Your task to perform on an android device: turn on airplane mode Image 0: 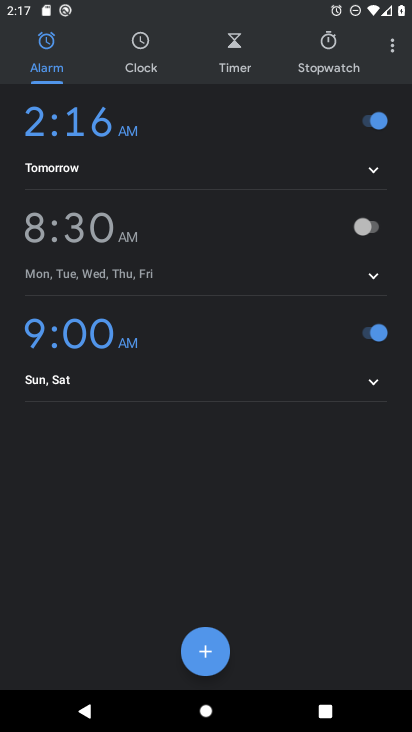
Step 0: press home button
Your task to perform on an android device: turn on airplane mode Image 1: 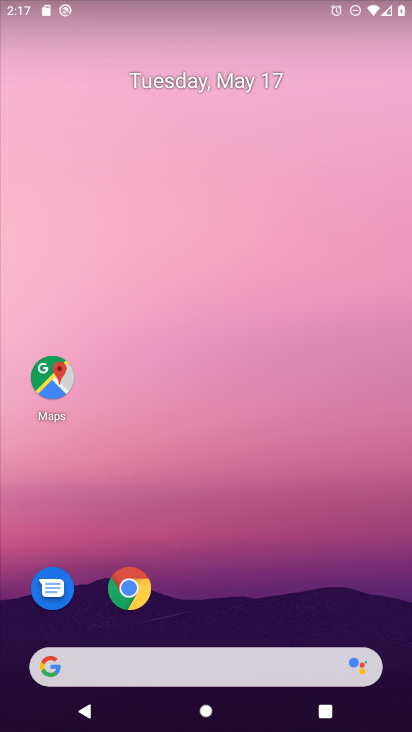
Step 1: drag from (236, 621) to (80, 73)
Your task to perform on an android device: turn on airplane mode Image 2: 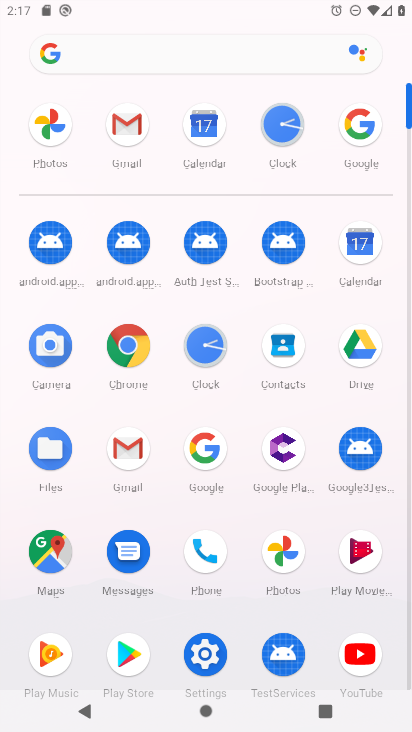
Step 2: click (203, 644)
Your task to perform on an android device: turn on airplane mode Image 3: 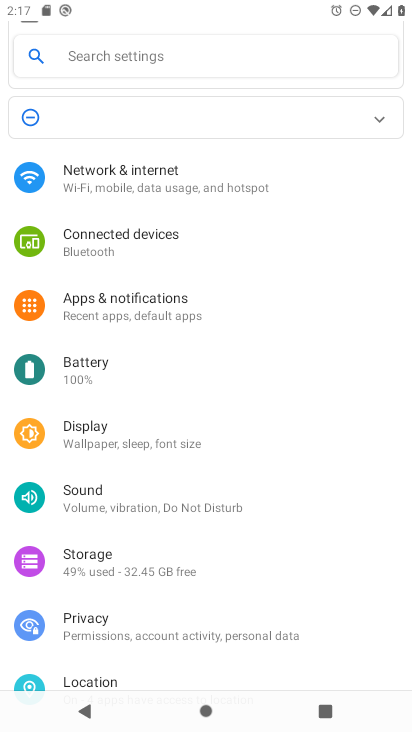
Step 3: click (197, 185)
Your task to perform on an android device: turn on airplane mode Image 4: 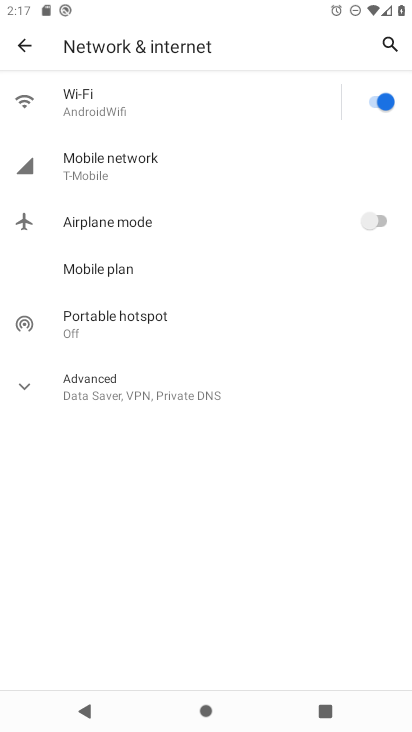
Step 4: click (384, 220)
Your task to perform on an android device: turn on airplane mode Image 5: 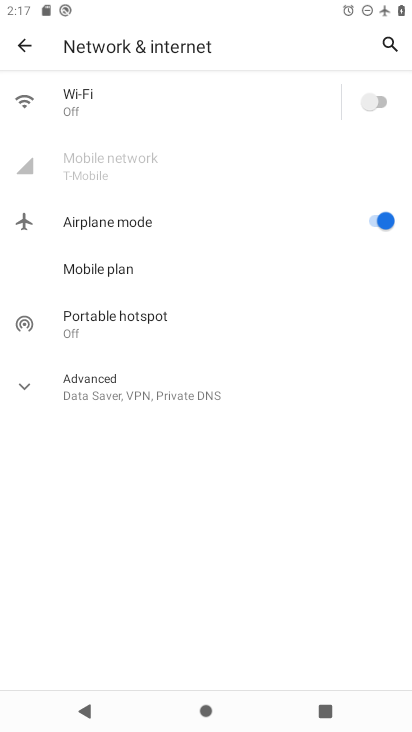
Step 5: task complete